Your task to perform on an android device: Search for "bose soundlink mini" on target.com, select the first entry, add it to the cart, then select checkout. Image 0: 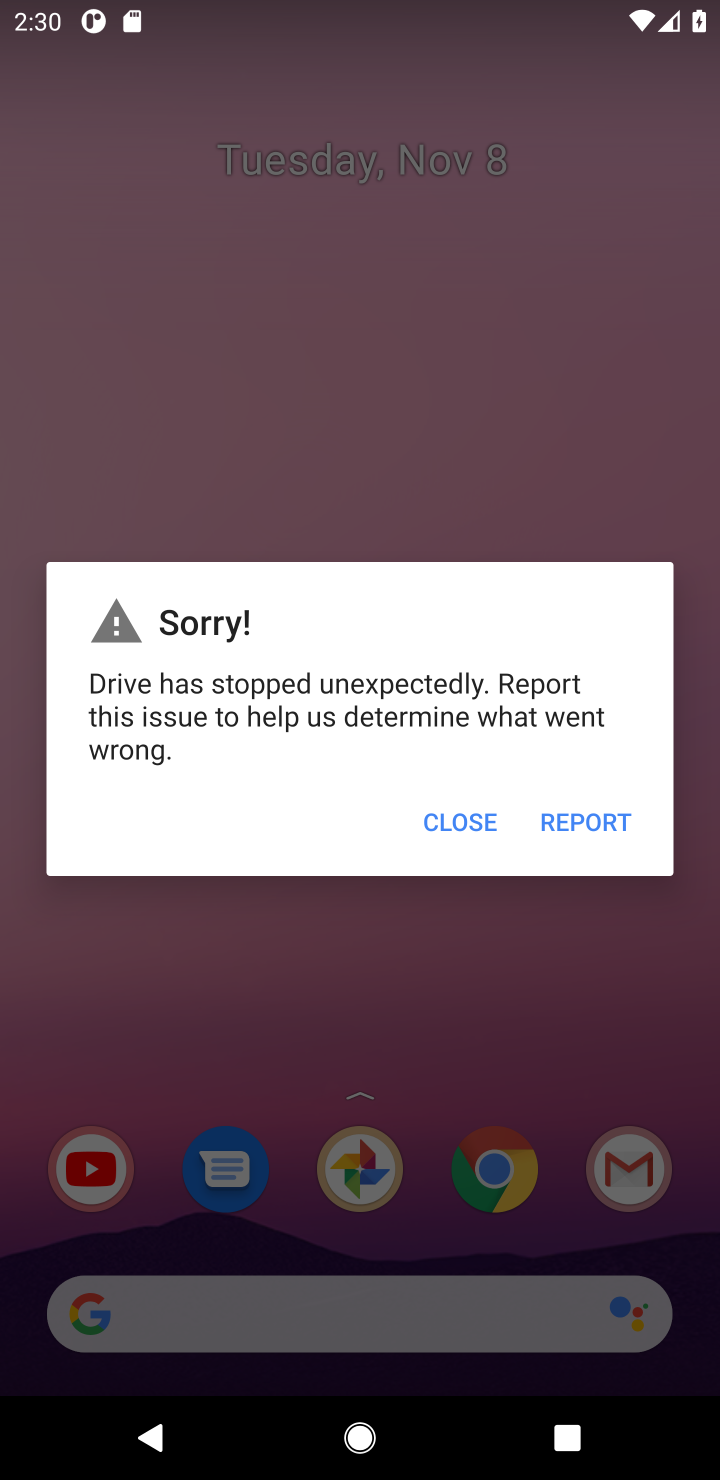
Step 0: press home button
Your task to perform on an android device: Search for "bose soundlink mini" on target.com, select the first entry, add it to the cart, then select checkout. Image 1: 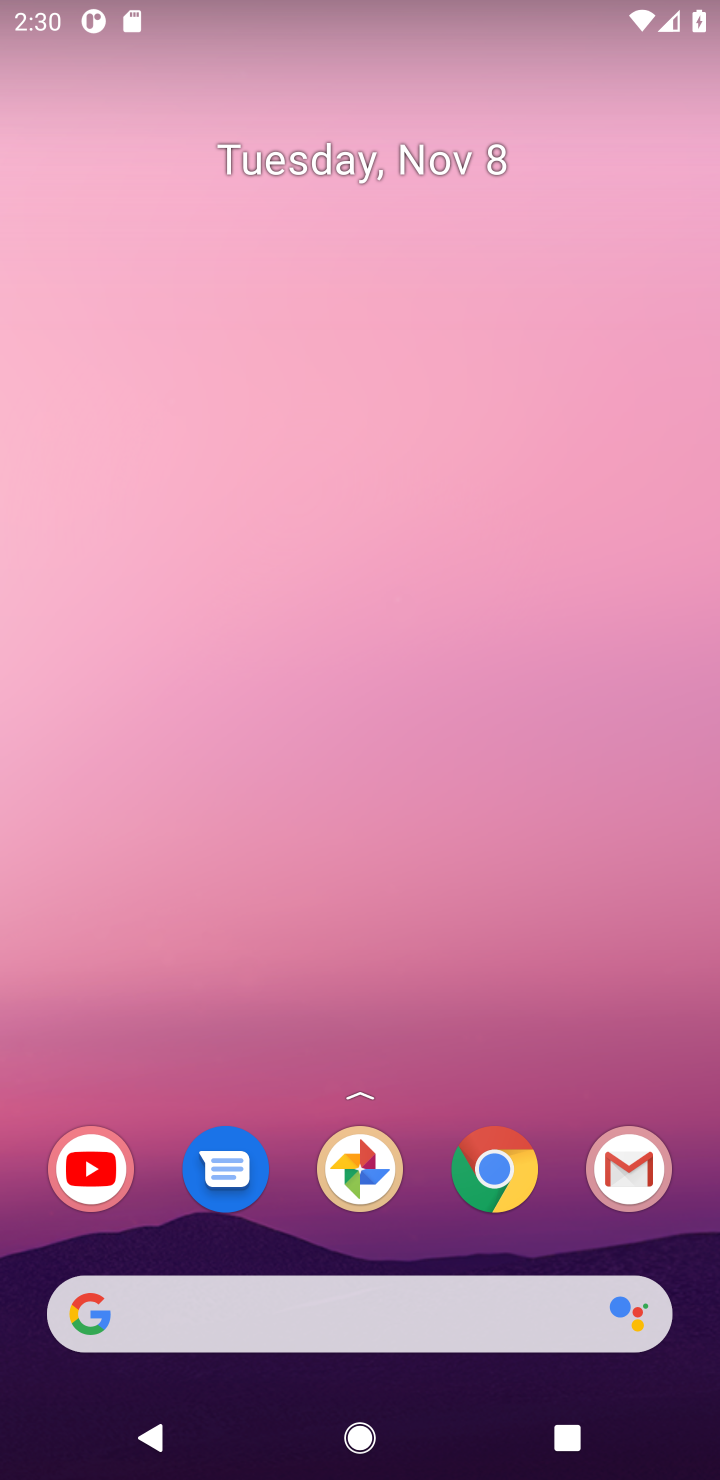
Step 1: click (486, 1176)
Your task to perform on an android device: Search for "bose soundlink mini" on target.com, select the first entry, add it to the cart, then select checkout. Image 2: 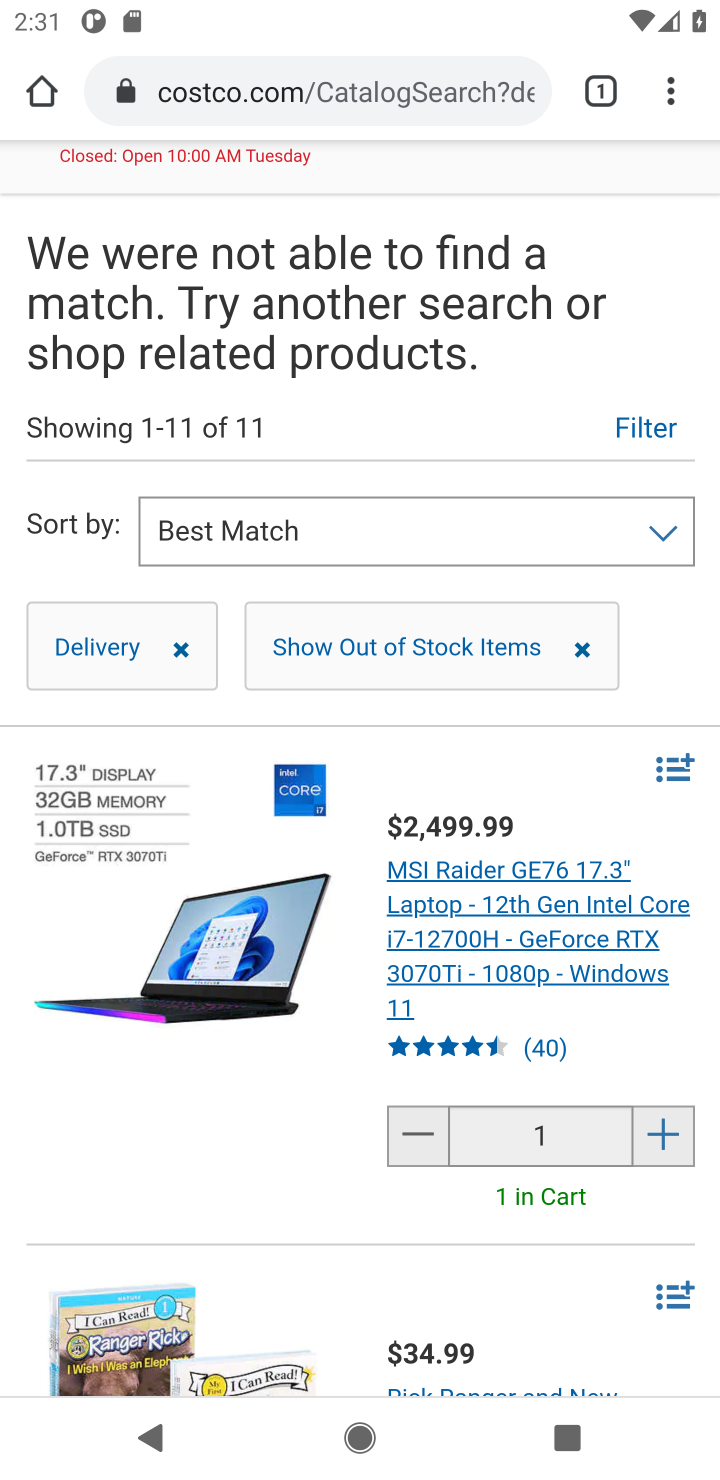
Step 2: click (349, 93)
Your task to perform on an android device: Search for "bose soundlink mini" on target.com, select the first entry, add it to the cart, then select checkout. Image 3: 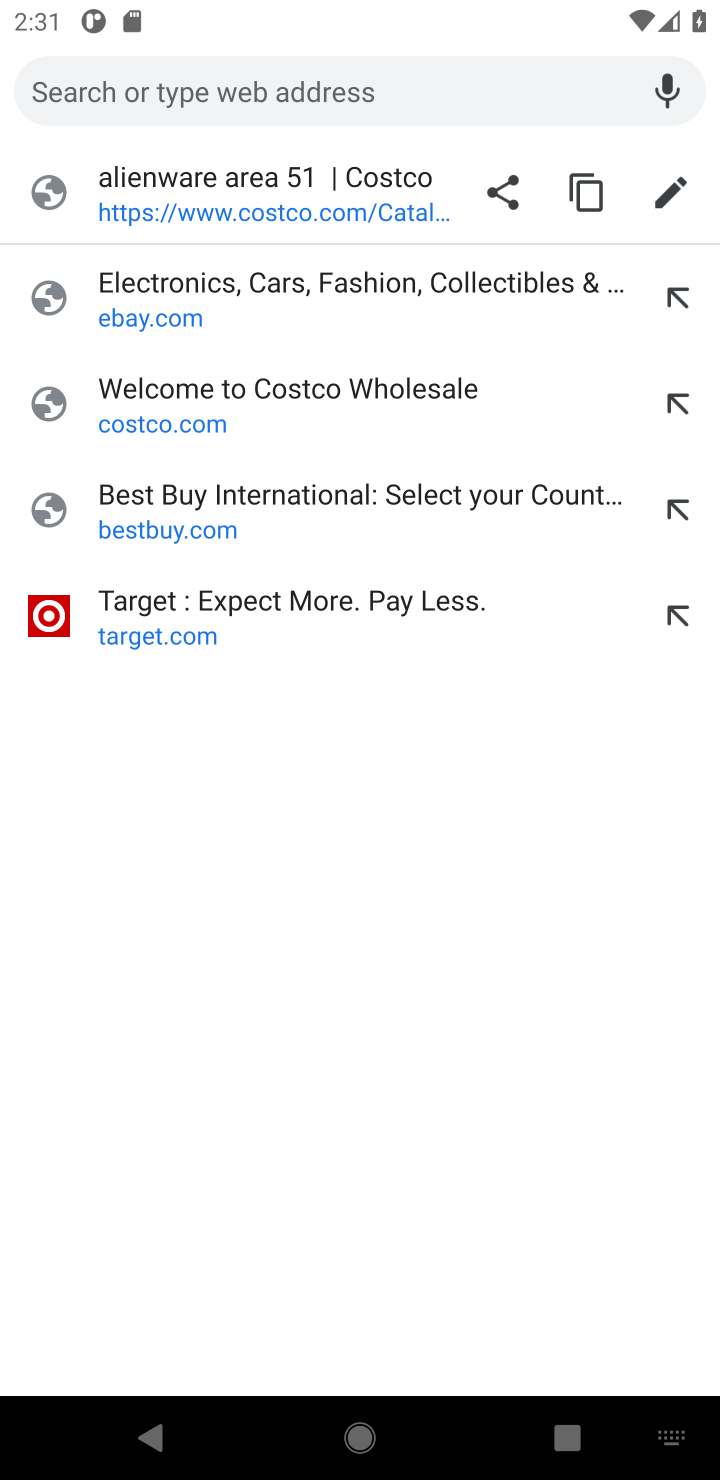
Step 3: type "target.com"
Your task to perform on an android device: Search for "bose soundlink mini" on target.com, select the first entry, add it to the cart, then select checkout. Image 4: 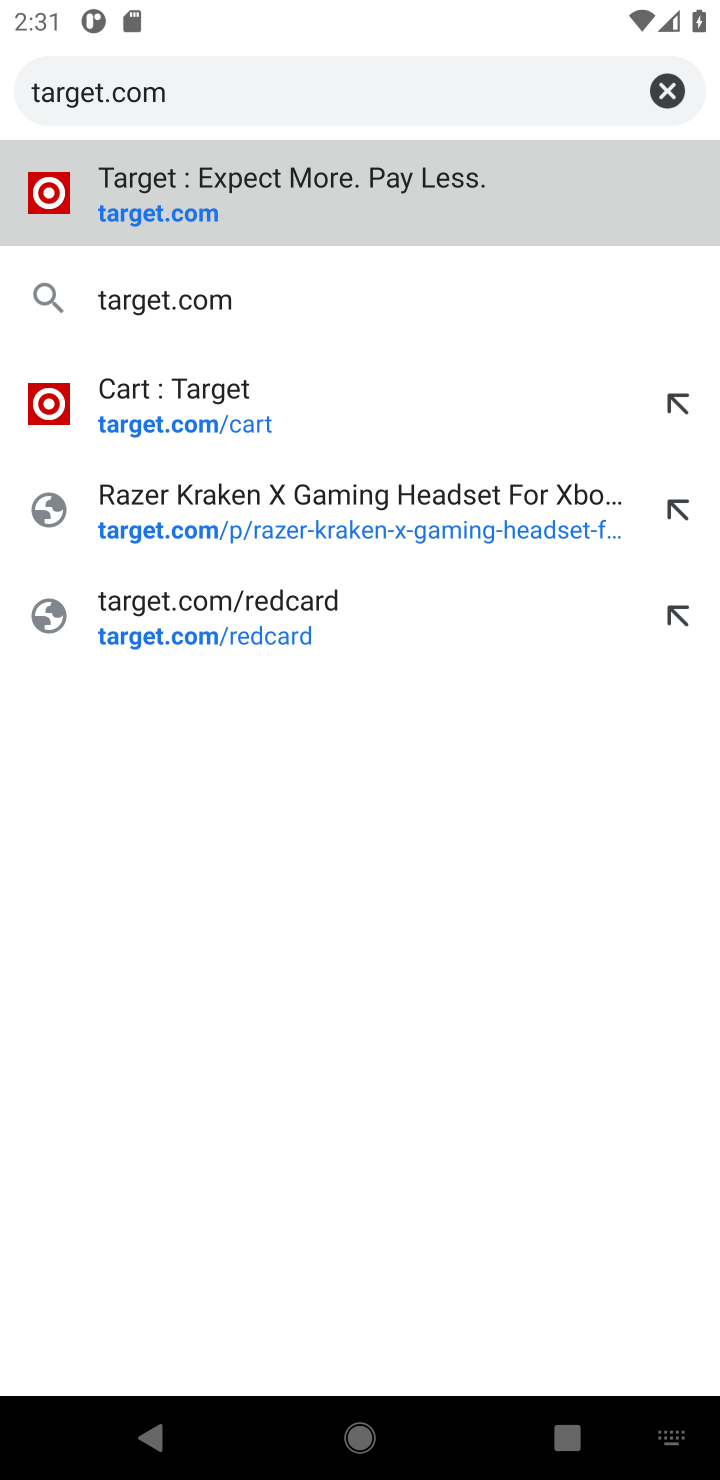
Step 4: click (339, 186)
Your task to perform on an android device: Search for "bose soundlink mini" on target.com, select the first entry, add it to the cart, then select checkout. Image 5: 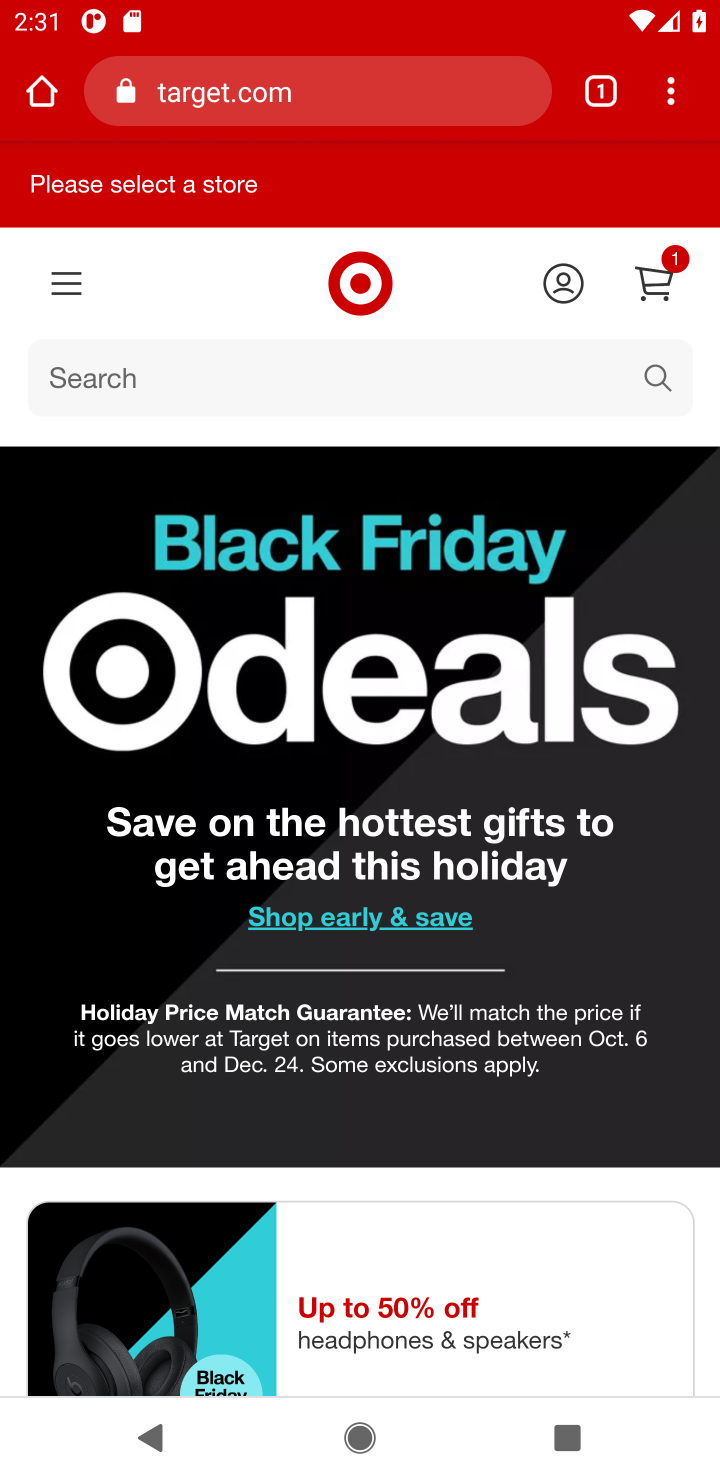
Step 5: click (310, 340)
Your task to perform on an android device: Search for "bose soundlink mini" on target.com, select the first entry, add it to the cart, then select checkout. Image 6: 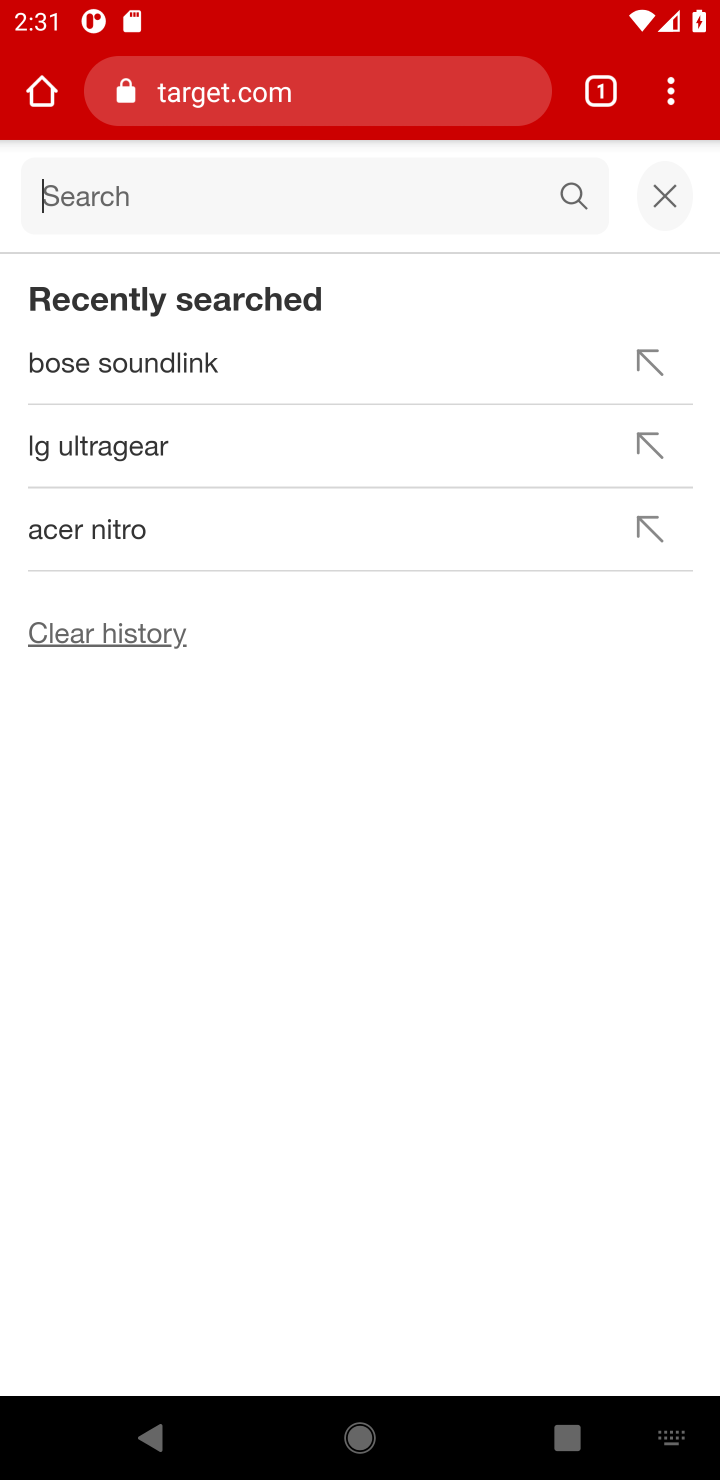
Step 6: type "bose soundlink mini"
Your task to perform on an android device: Search for "bose soundlink mini" on target.com, select the first entry, add it to the cart, then select checkout. Image 7: 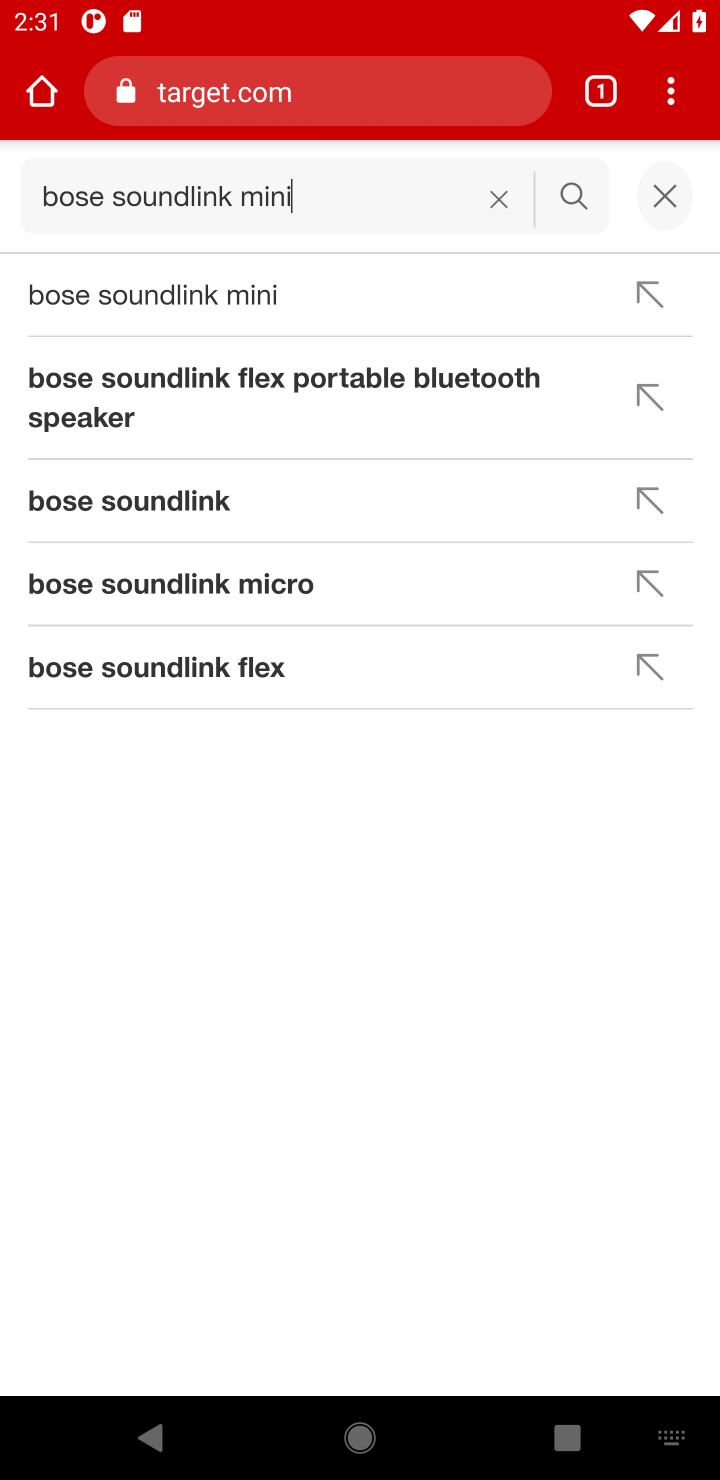
Step 7: press enter
Your task to perform on an android device: Search for "bose soundlink mini" on target.com, select the first entry, add it to the cart, then select checkout. Image 8: 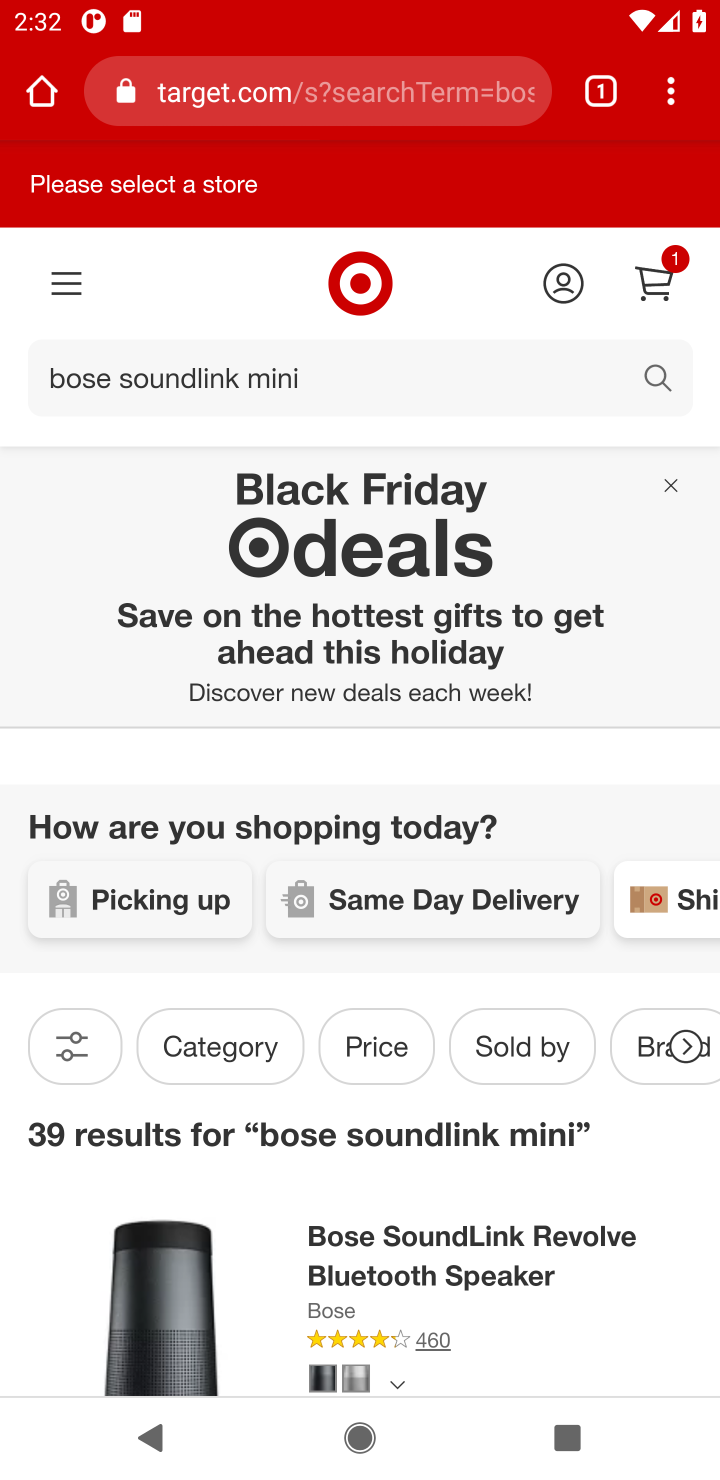
Step 8: drag from (384, 1096) to (360, 191)
Your task to perform on an android device: Search for "bose soundlink mini" on target.com, select the first entry, add it to the cart, then select checkout. Image 9: 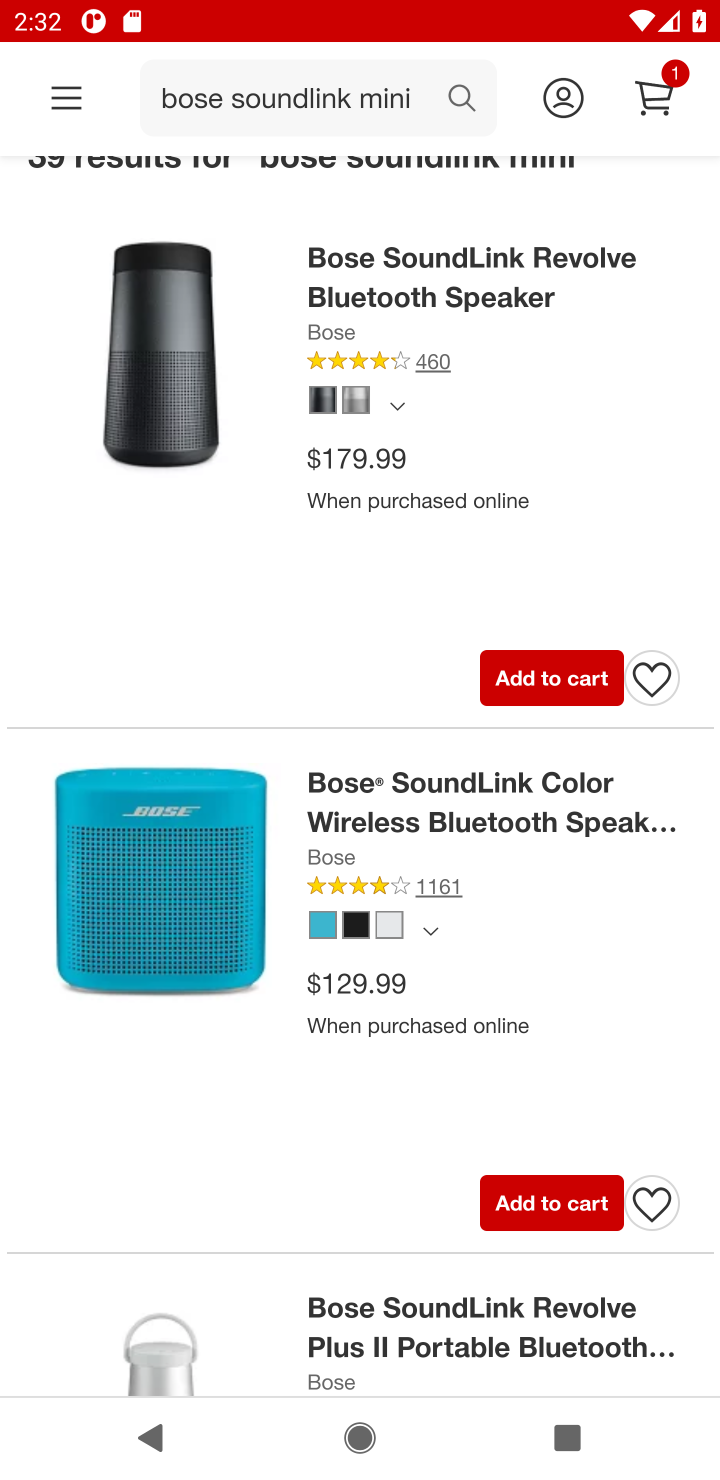
Step 9: click (581, 681)
Your task to perform on an android device: Search for "bose soundlink mini" on target.com, select the first entry, add it to the cart, then select checkout. Image 10: 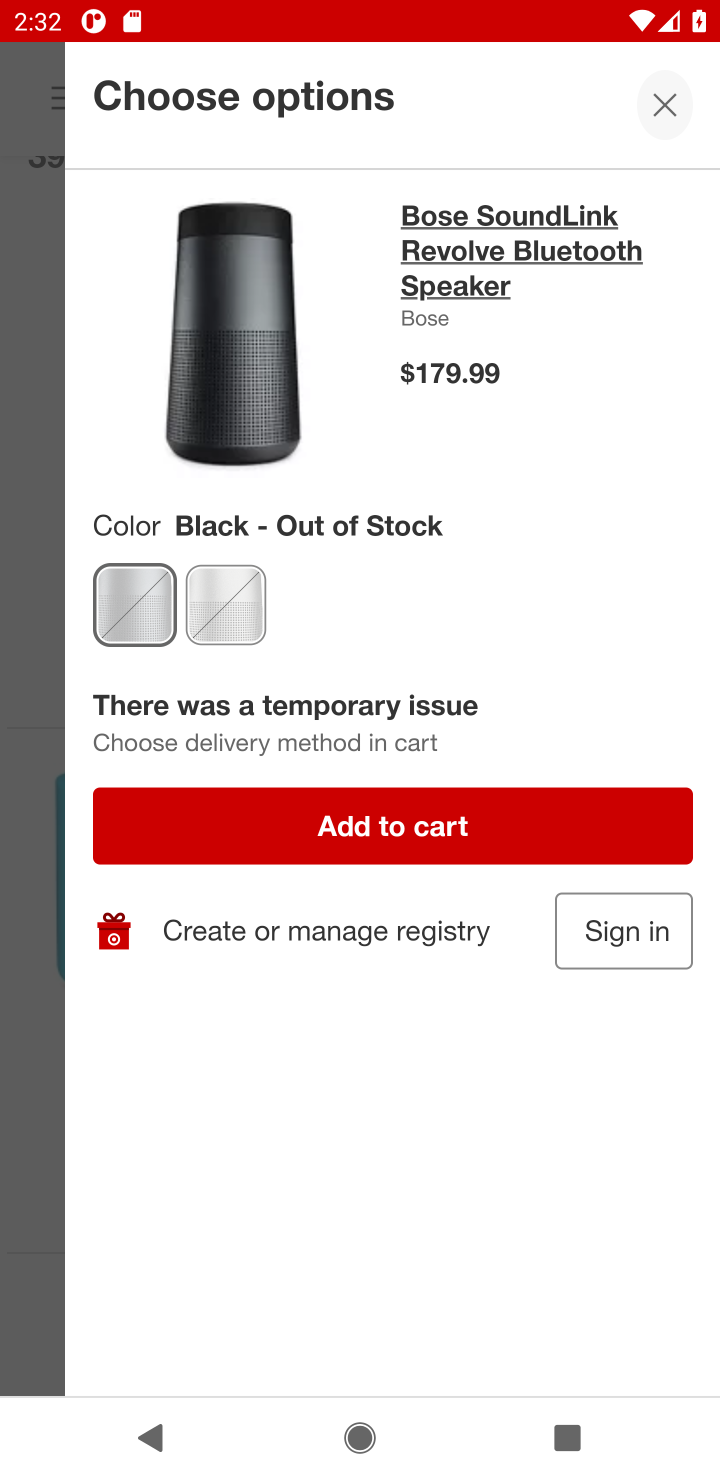
Step 10: click (337, 847)
Your task to perform on an android device: Search for "bose soundlink mini" on target.com, select the first entry, add it to the cart, then select checkout. Image 11: 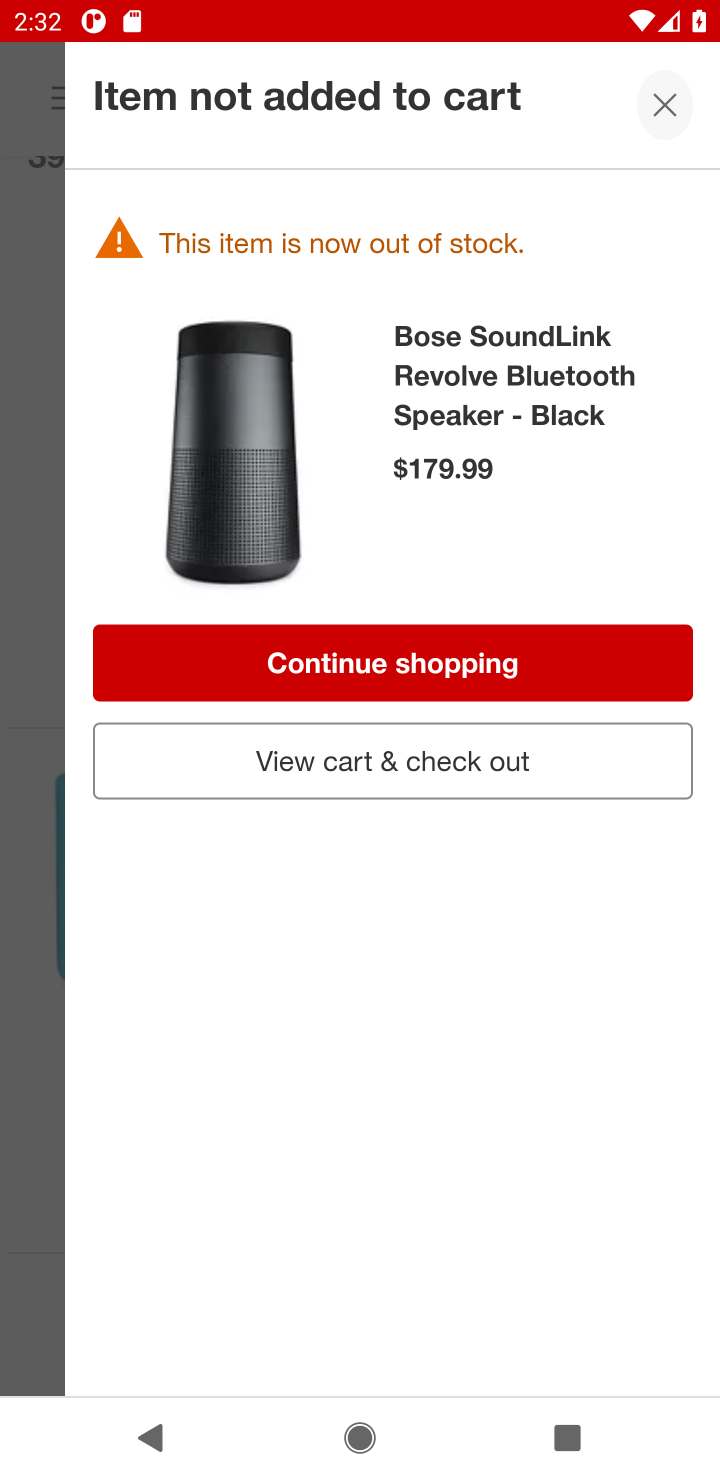
Step 11: click (291, 751)
Your task to perform on an android device: Search for "bose soundlink mini" on target.com, select the first entry, add it to the cart, then select checkout. Image 12: 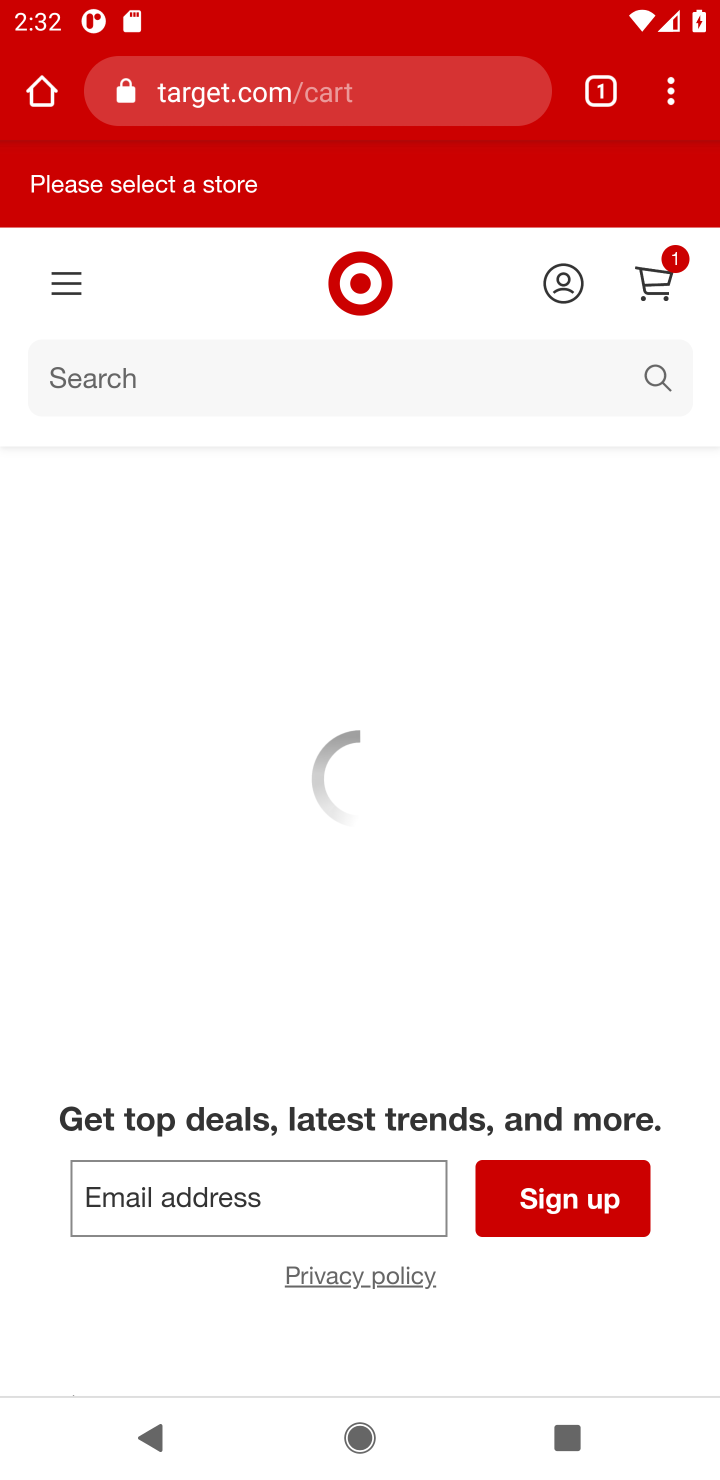
Step 12: task complete